Your task to perform on an android device: turn on bluetooth scan Image 0: 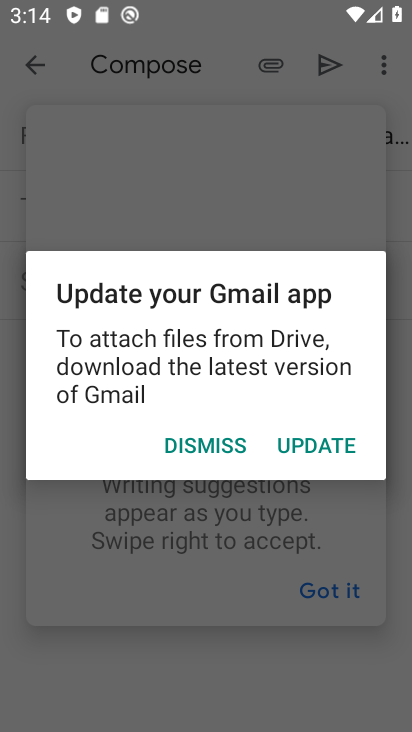
Step 0: press home button
Your task to perform on an android device: turn on bluetooth scan Image 1: 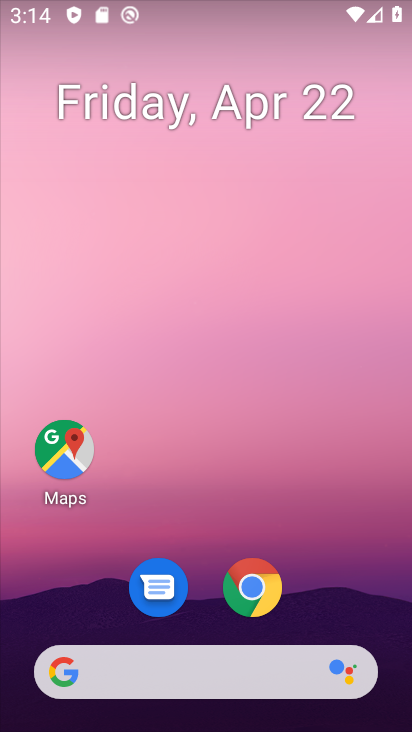
Step 1: drag from (208, 494) to (278, 24)
Your task to perform on an android device: turn on bluetooth scan Image 2: 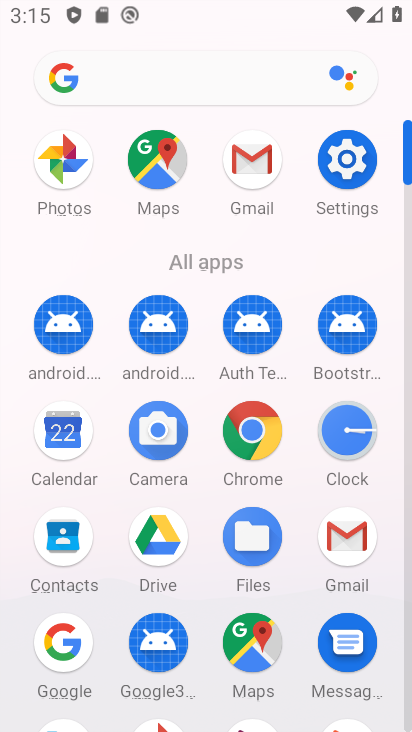
Step 2: click (349, 160)
Your task to perform on an android device: turn on bluetooth scan Image 3: 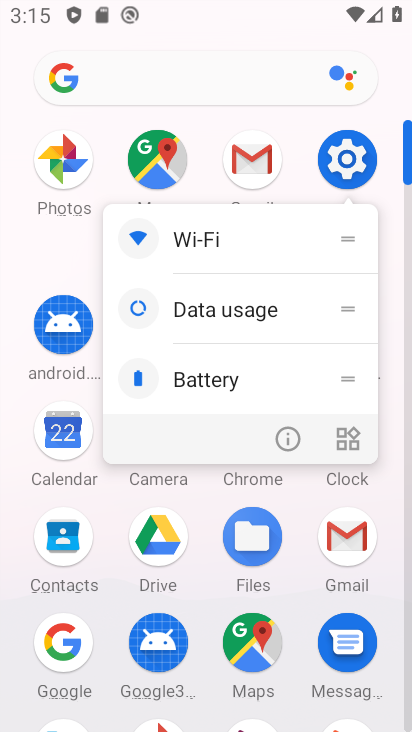
Step 3: click (349, 160)
Your task to perform on an android device: turn on bluetooth scan Image 4: 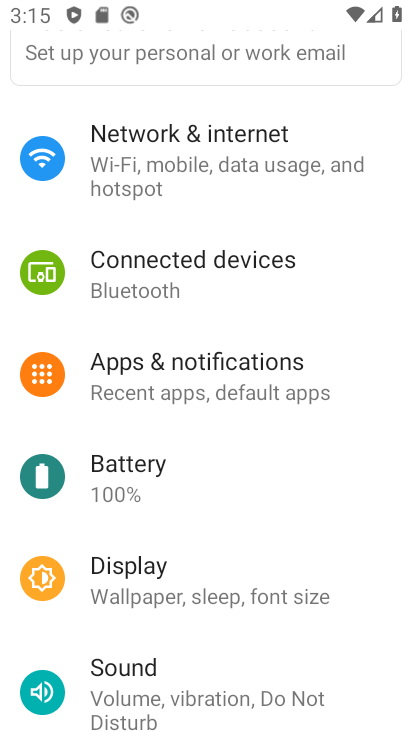
Step 4: drag from (186, 528) to (241, 361)
Your task to perform on an android device: turn on bluetooth scan Image 5: 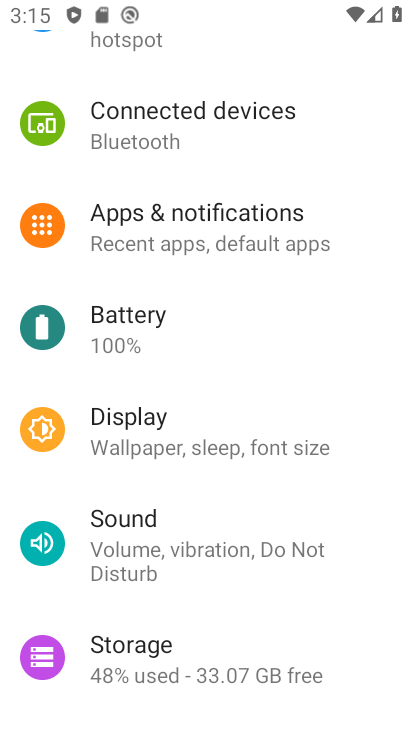
Step 5: drag from (225, 607) to (268, 363)
Your task to perform on an android device: turn on bluetooth scan Image 6: 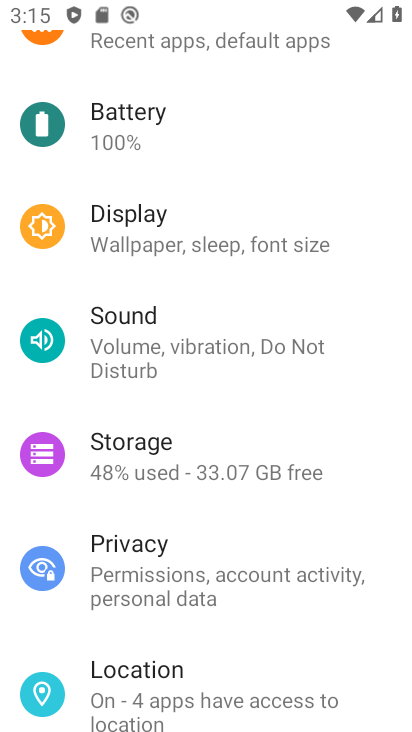
Step 6: drag from (228, 523) to (267, 331)
Your task to perform on an android device: turn on bluetooth scan Image 7: 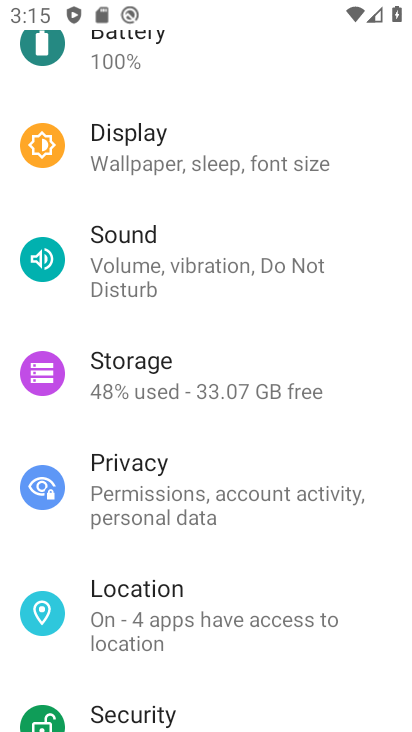
Step 7: drag from (248, 531) to (308, 316)
Your task to perform on an android device: turn on bluetooth scan Image 8: 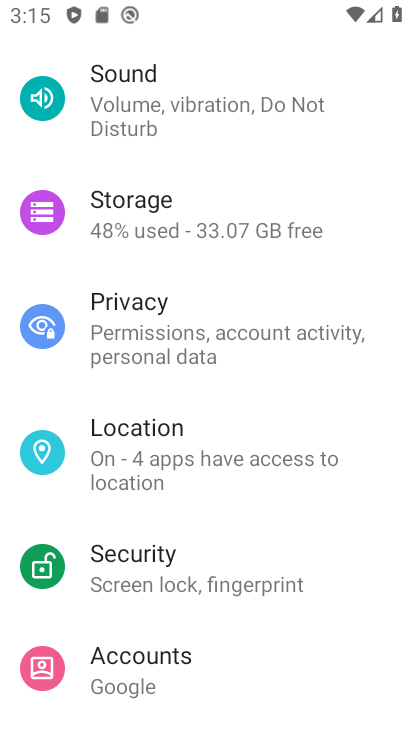
Step 8: click (197, 457)
Your task to perform on an android device: turn on bluetooth scan Image 9: 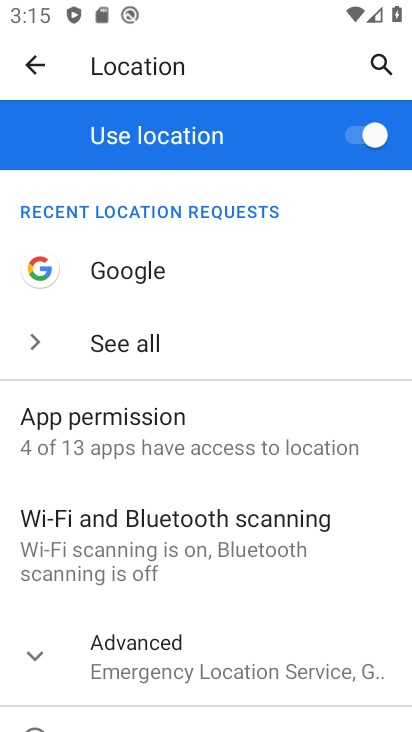
Step 9: drag from (255, 628) to (323, 407)
Your task to perform on an android device: turn on bluetooth scan Image 10: 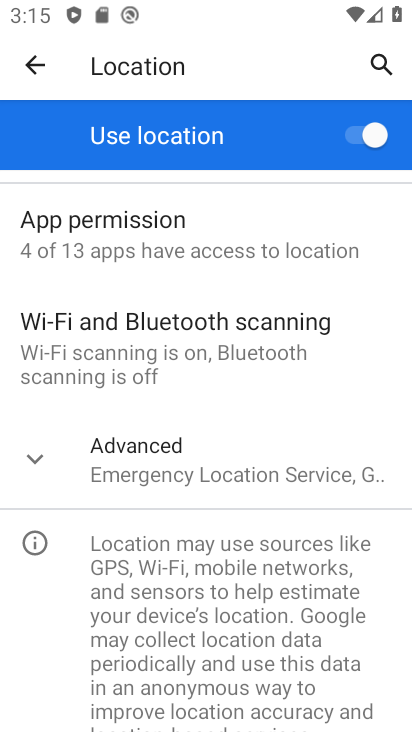
Step 10: click (215, 336)
Your task to perform on an android device: turn on bluetooth scan Image 11: 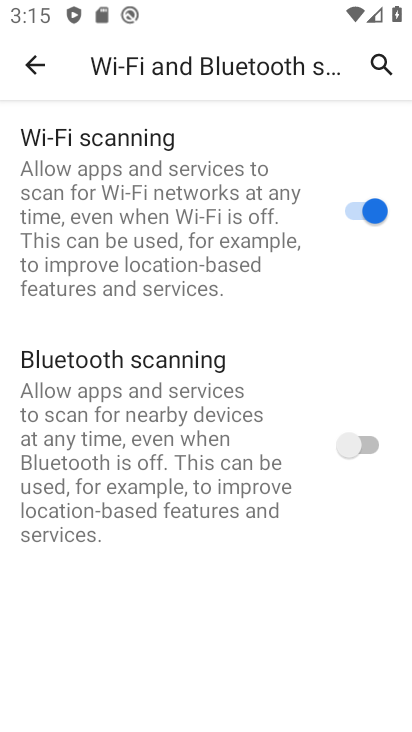
Step 11: click (361, 446)
Your task to perform on an android device: turn on bluetooth scan Image 12: 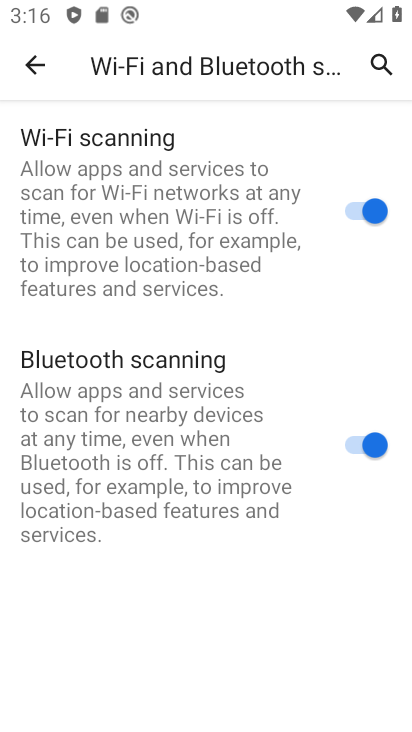
Step 12: task complete